Your task to perform on an android device: Search for sushi restaurants on Maps Image 0: 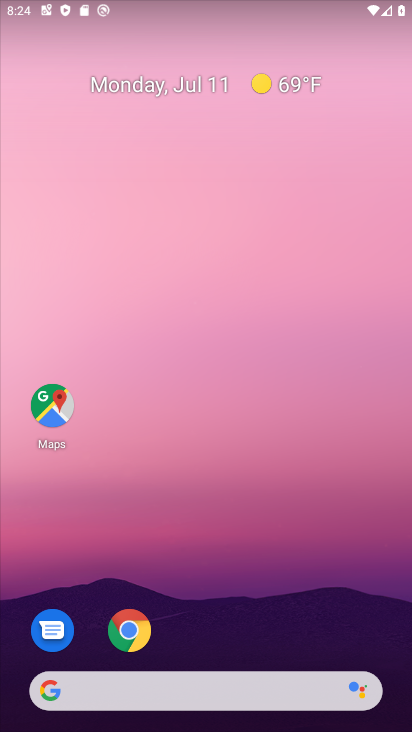
Step 0: click (44, 395)
Your task to perform on an android device: Search for sushi restaurants on Maps Image 1: 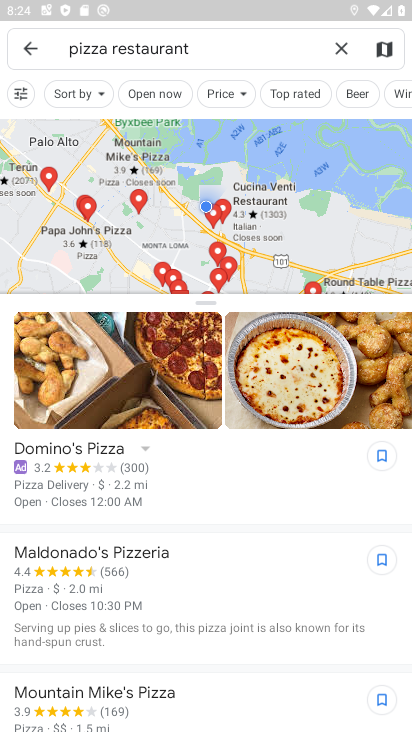
Step 1: click (332, 46)
Your task to perform on an android device: Search for sushi restaurants on Maps Image 2: 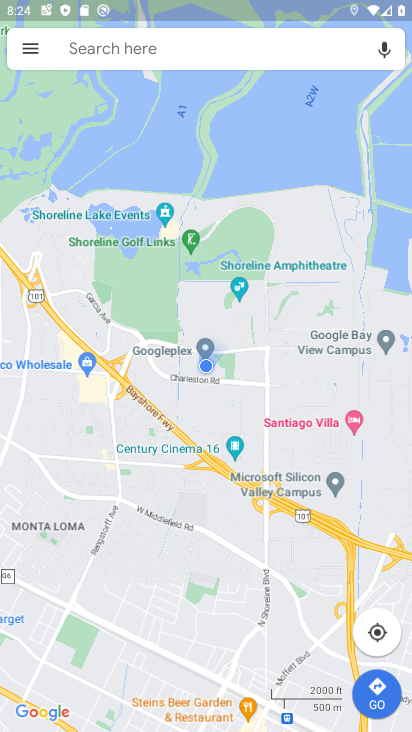
Step 2: click (163, 57)
Your task to perform on an android device: Search for sushi restaurants on Maps Image 3: 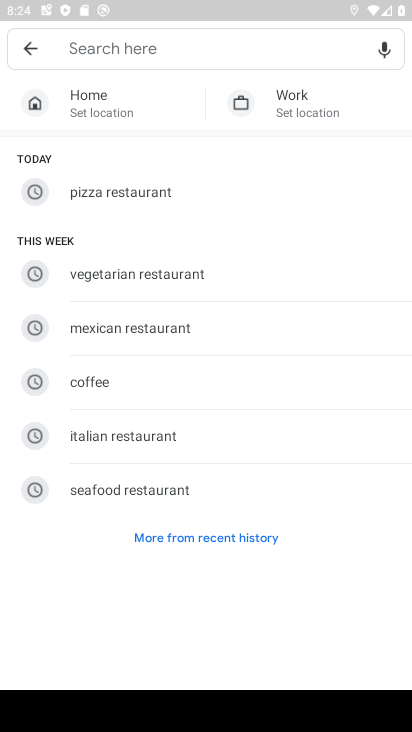
Step 3: type "sushi restaurants"
Your task to perform on an android device: Search for sushi restaurants on Maps Image 4: 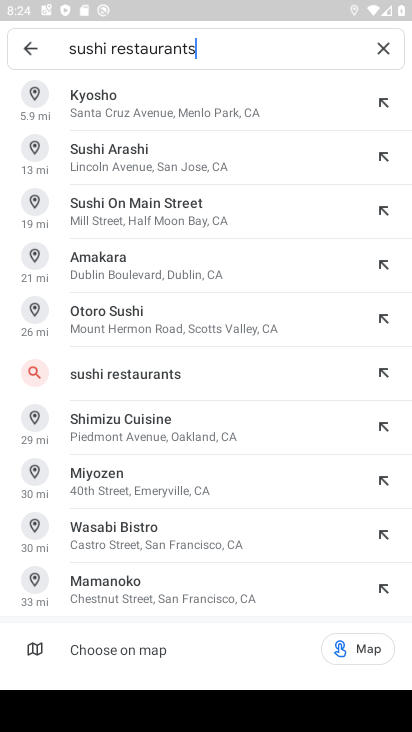
Step 4: click (134, 374)
Your task to perform on an android device: Search for sushi restaurants on Maps Image 5: 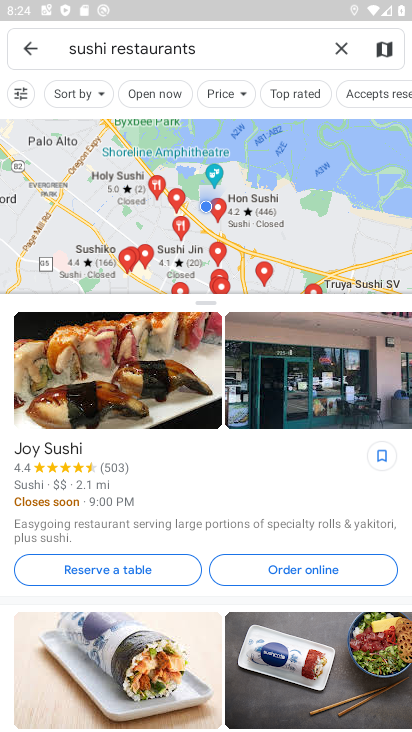
Step 5: task complete